Your task to perform on an android device: turn notification dots off Image 0: 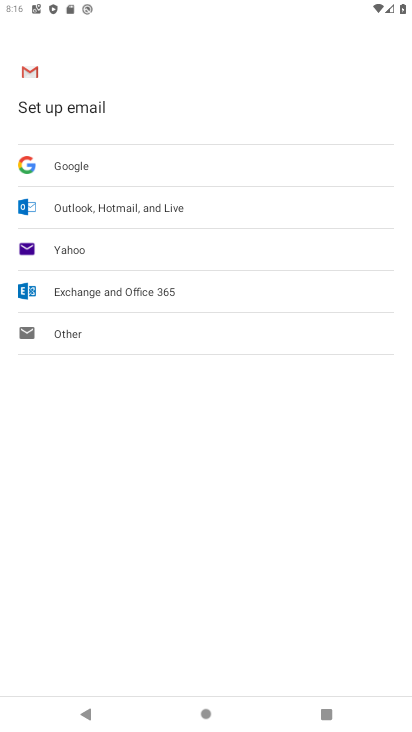
Step 0: press home button
Your task to perform on an android device: turn notification dots off Image 1: 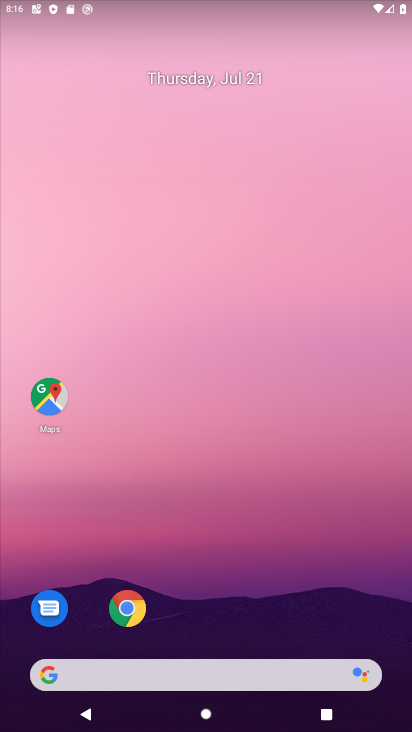
Step 1: drag from (19, 698) to (355, 70)
Your task to perform on an android device: turn notification dots off Image 2: 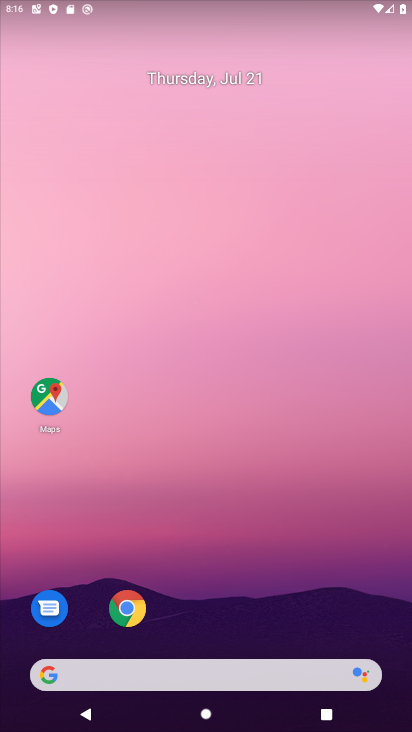
Step 2: drag from (53, 630) to (377, 20)
Your task to perform on an android device: turn notification dots off Image 3: 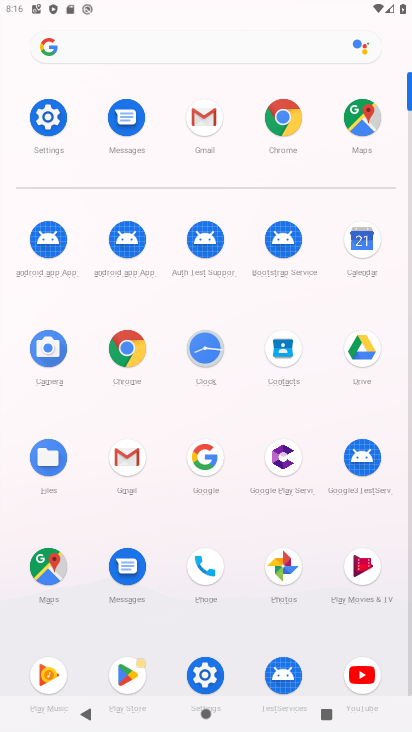
Step 3: click (190, 660)
Your task to perform on an android device: turn notification dots off Image 4: 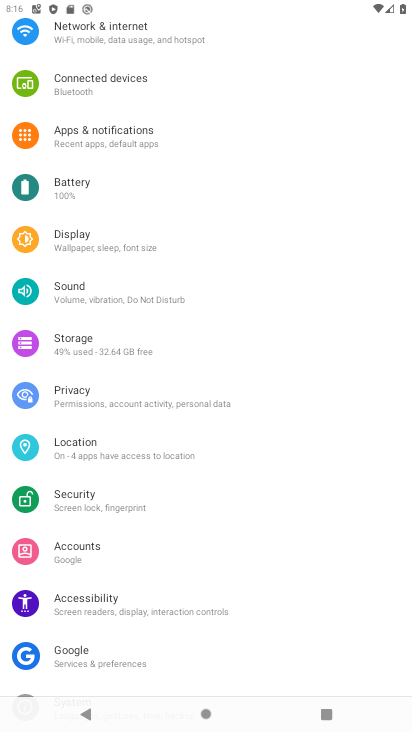
Step 4: click (130, 138)
Your task to perform on an android device: turn notification dots off Image 5: 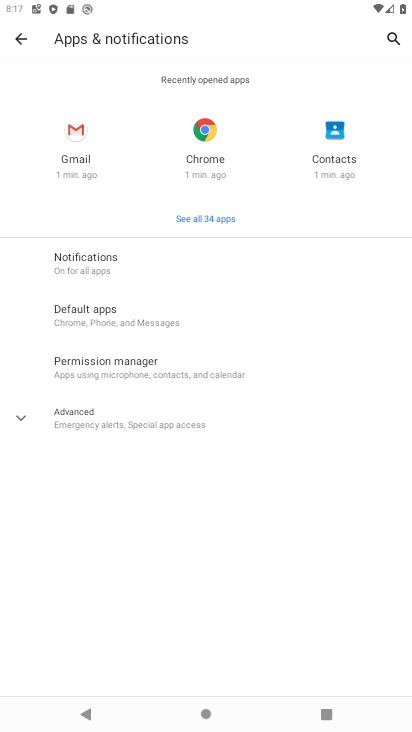
Step 5: click (88, 411)
Your task to perform on an android device: turn notification dots off Image 6: 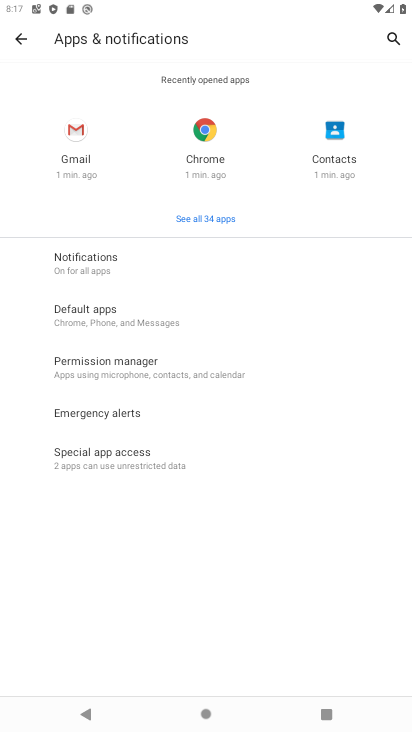
Step 6: click (109, 312)
Your task to perform on an android device: turn notification dots off Image 7: 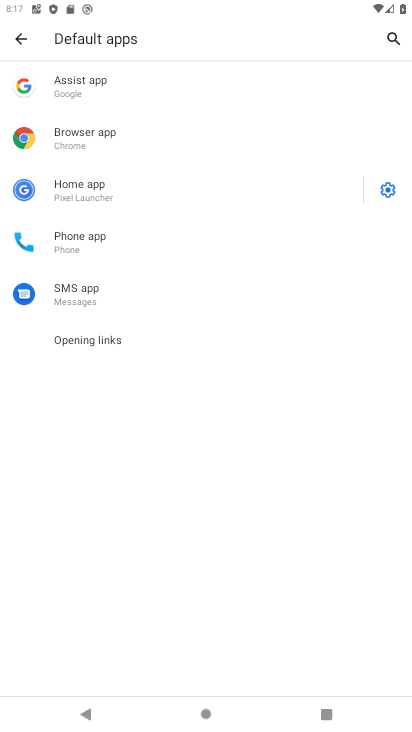
Step 7: click (11, 39)
Your task to perform on an android device: turn notification dots off Image 8: 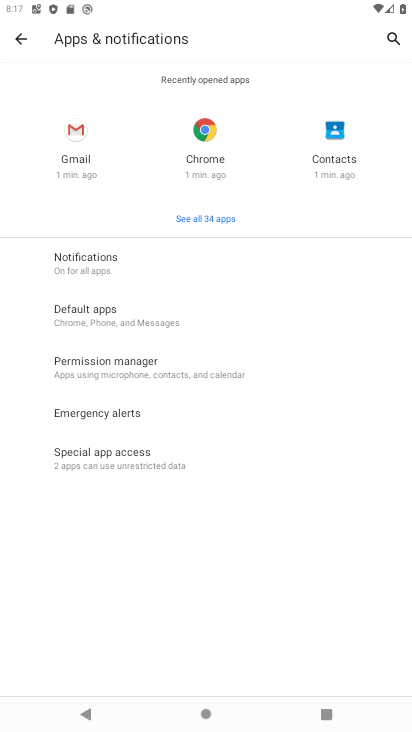
Step 8: click (115, 268)
Your task to perform on an android device: turn notification dots off Image 9: 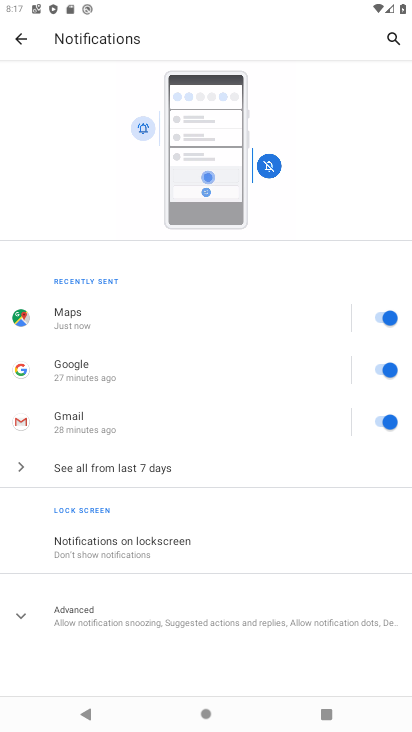
Step 9: drag from (194, 619) to (360, 56)
Your task to perform on an android device: turn notification dots off Image 10: 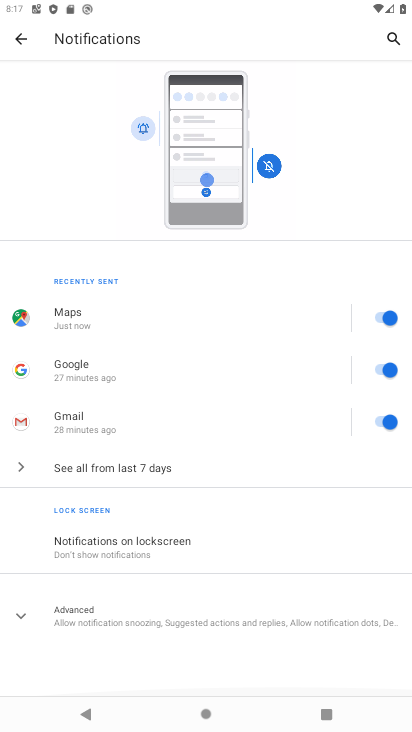
Step 10: click (178, 602)
Your task to perform on an android device: turn notification dots off Image 11: 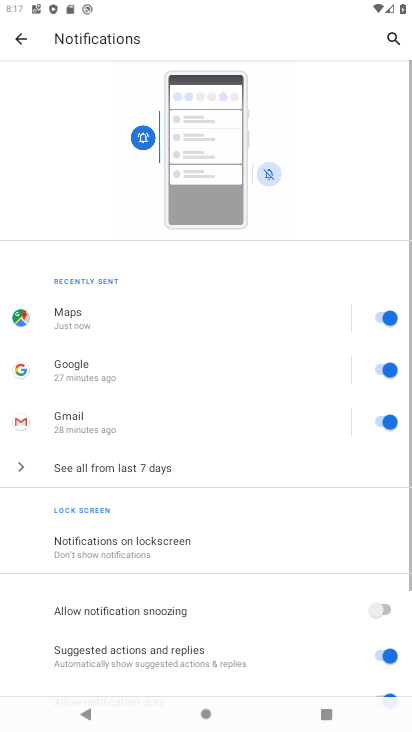
Step 11: drag from (179, 645) to (219, 416)
Your task to perform on an android device: turn notification dots off Image 12: 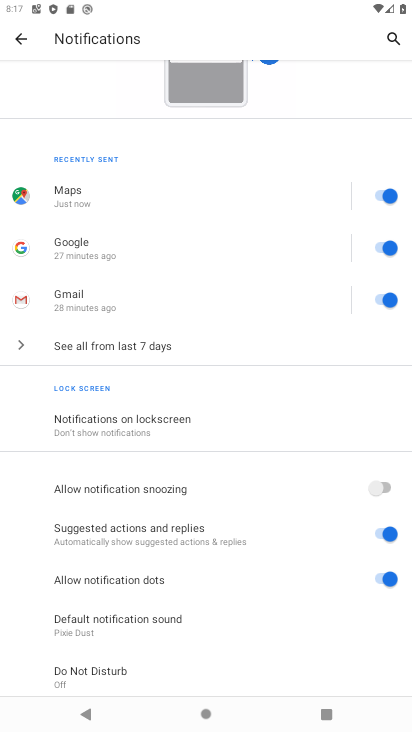
Step 12: click (381, 579)
Your task to perform on an android device: turn notification dots off Image 13: 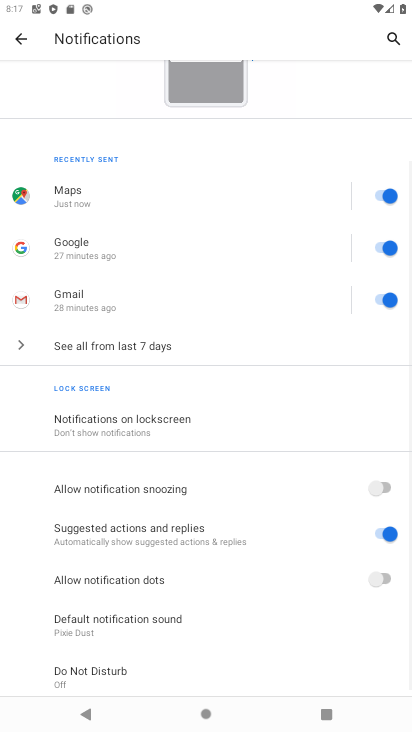
Step 13: task complete